Your task to perform on an android device: Open Amazon Image 0: 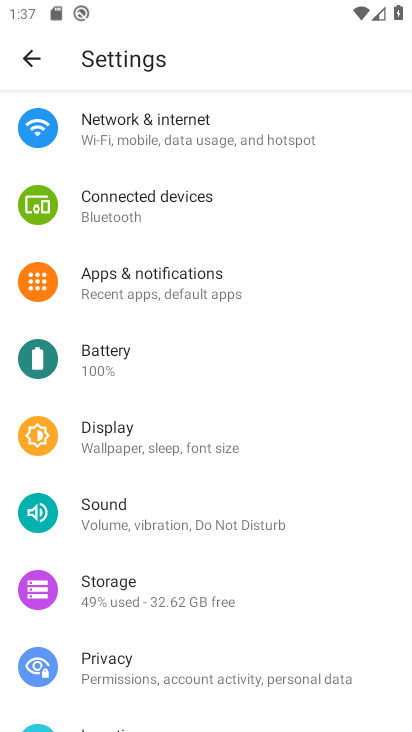
Step 0: press home button
Your task to perform on an android device: Open Amazon Image 1: 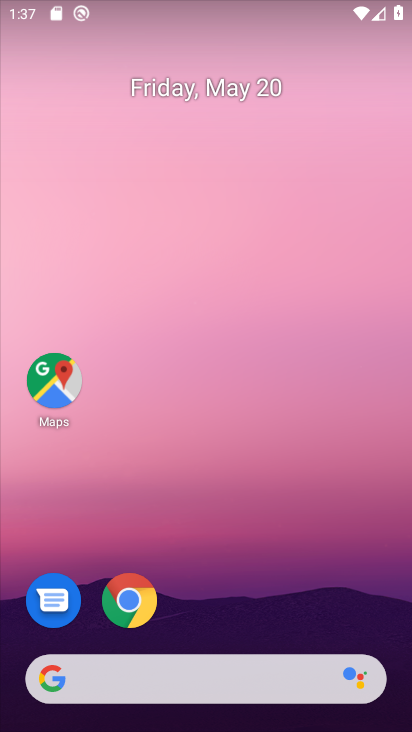
Step 1: click (148, 608)
Your task to perform on an android device: Open Amazon Image 2: 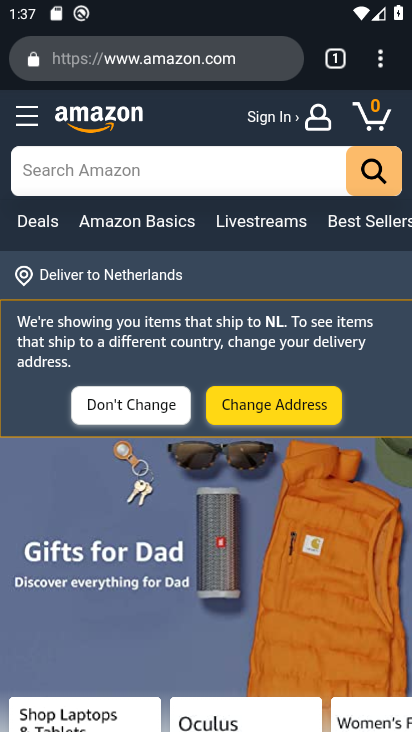
Step 2: task complete